Your task to perform on an android device: delete the emails in spam in the gmail app Image 0: 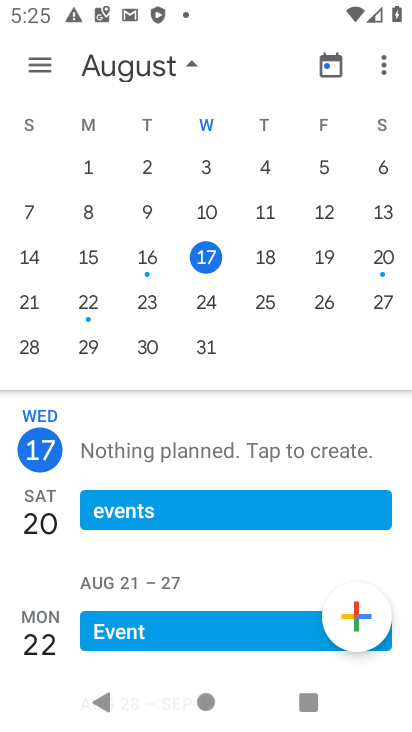
Step 0: press home button
Your task to perform on an android device: delete the emails in spam in the gmail app Image 1: 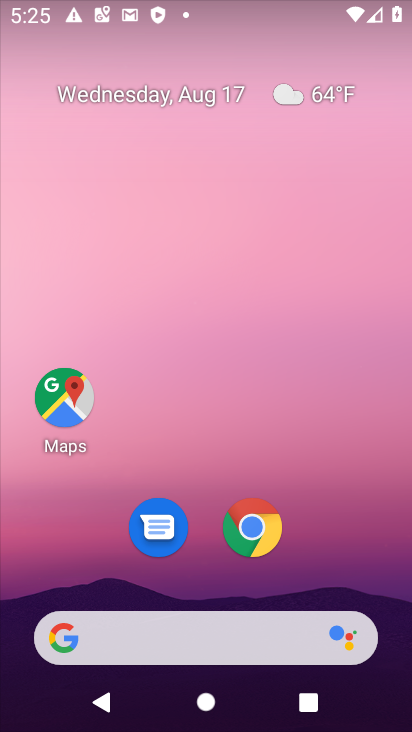
Step 1: drag from (217, 573) to (217, 0)
Your task to perform on an android device: delete the emails in spam in the gmail app Image 2: 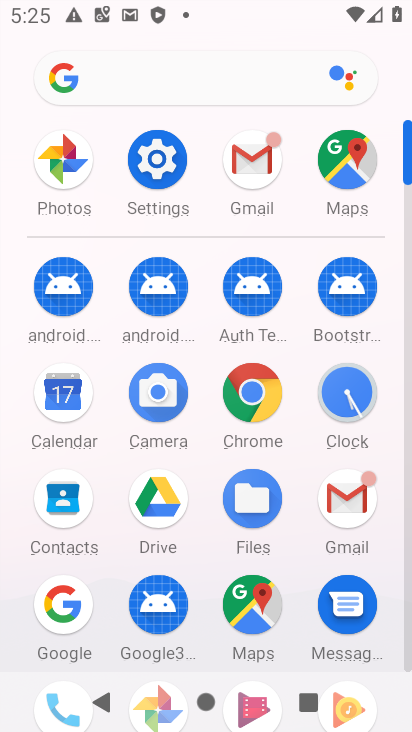
Step 2: click (241, 178)
Your task to perform on an android device: delete the emails in spam in the gmail app Image 3: 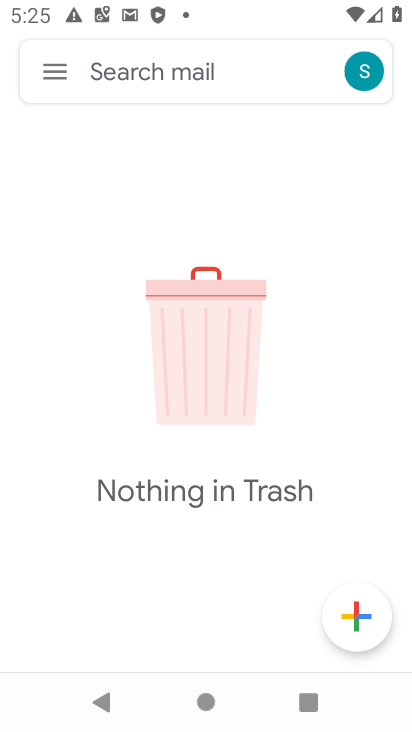
Step 3: click (66, 75)
Your task to perform on an android device: delete the emails in spam in the gmail app Image 4: 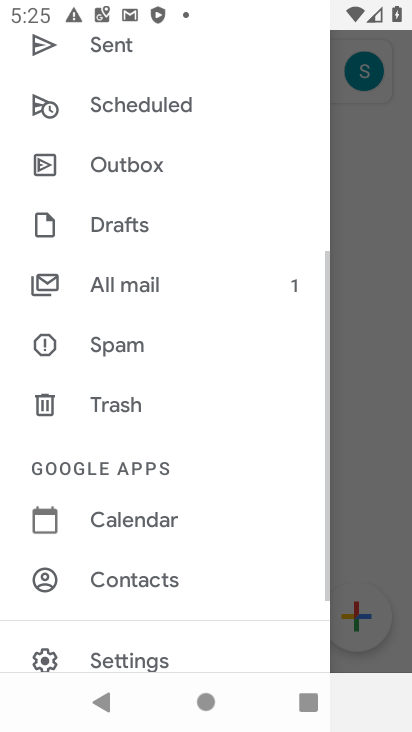
Step 4: click (126, 335)
Your task to perform on an android device: delete the emails in spam in the gmail app Image 5: 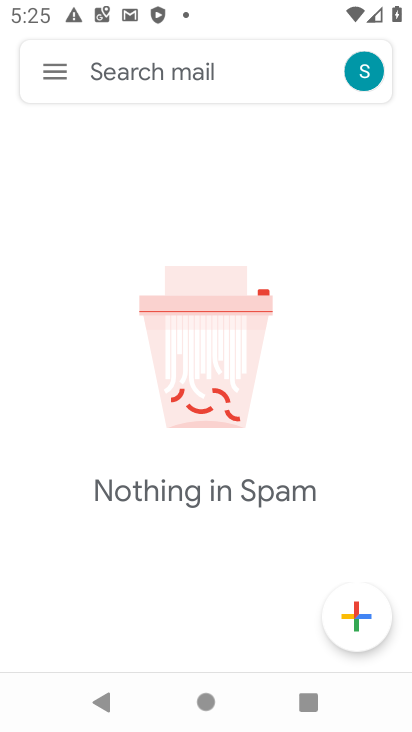
Step 5: task complete